Your task to perform on an android device: Go to Wikipedia Image 0: 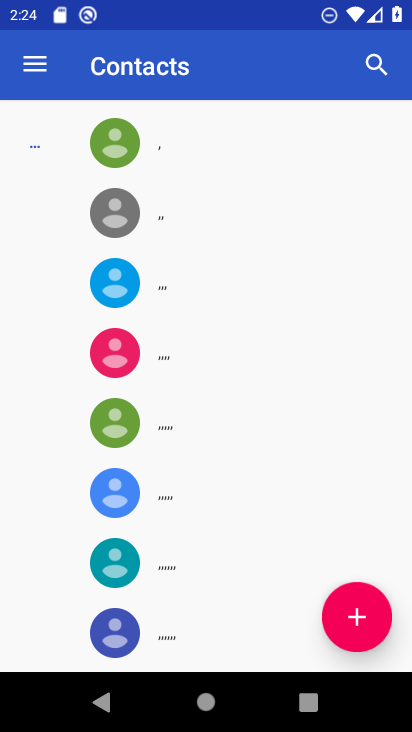
Step 0: drag from (285, 694) to (275, 201)
Your task to perform on an android device: Go to Wikipedia Image 1: 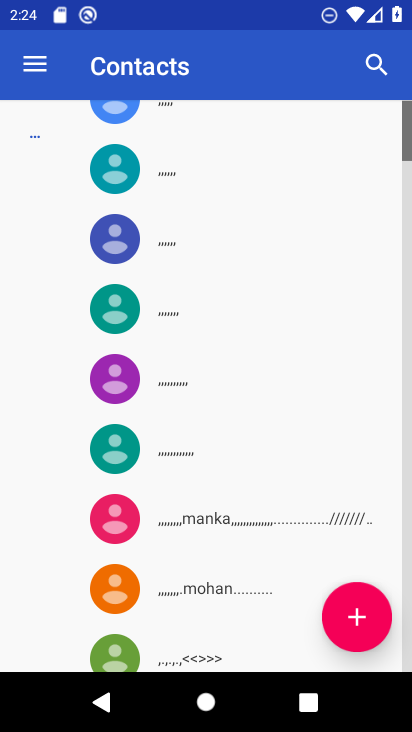
Step 1: press back button
Your task to perform on an android device: Go to Wikipedia Image 2: 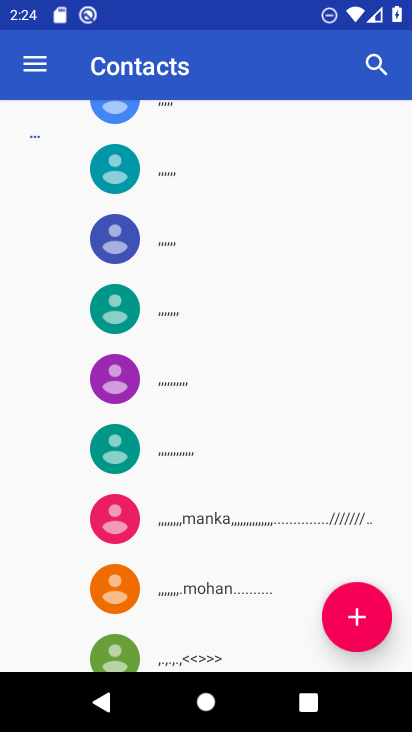
Step 2: press back button
Your task to perform on an android device: Go to Wikipedia Image 3: 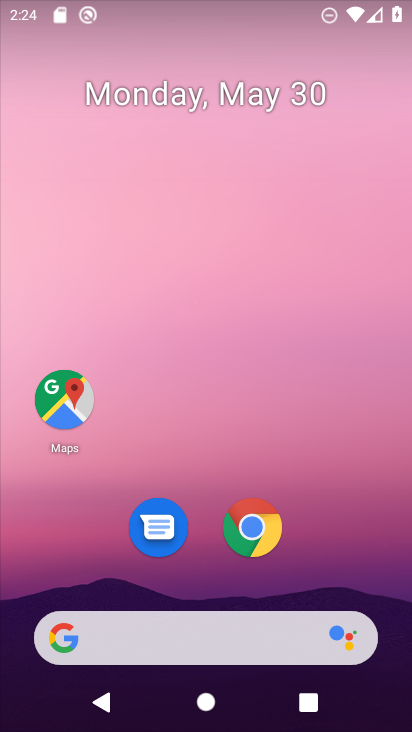
Step 3: drag from (265, 674) to (204, 122)
Your task to perform on an android device: Go to Wikipedia Image 4: 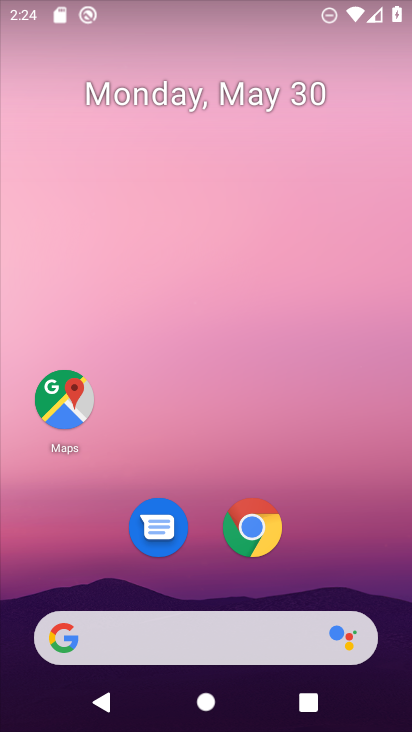
Step 4: drag from (277, 378) to (259, 109)
Your task to perform on an android device: Go to Wikipedia Image 5: 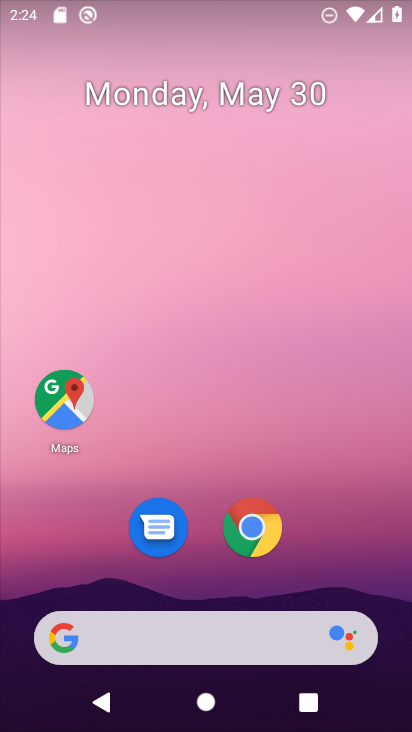
Step 5: drag from (280, 591) to (154, 141)
Your task to perform on an android device: Go to Wikipedia Image 6: 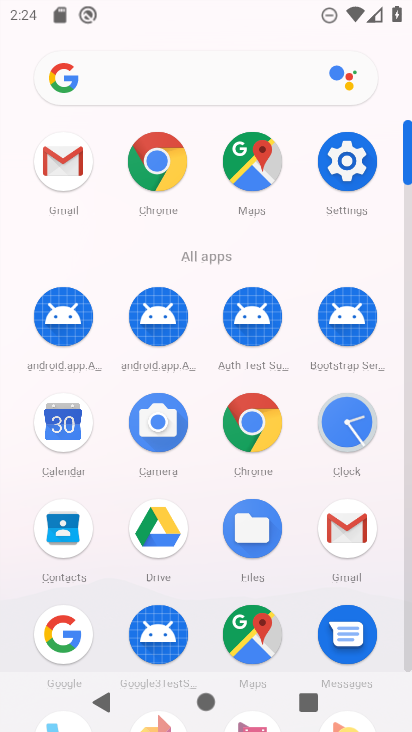
Step 6: click (166, 162)
Your task to perform on an android device: Go to Wikipedia Image 7: 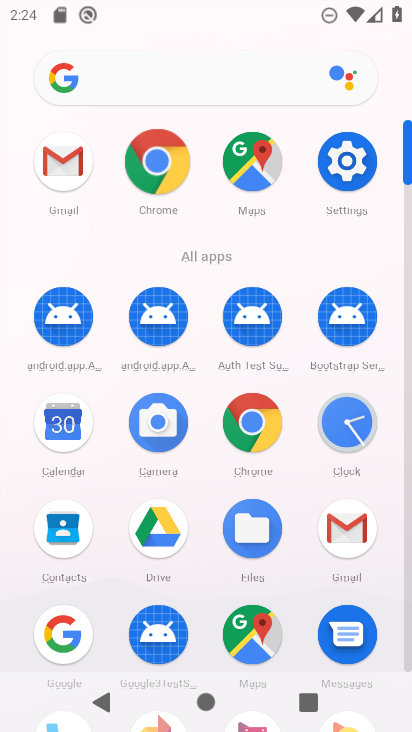
Step 7: click (166, 161)
Your task to perform on an android device: Go to Wikipedia Image 8: 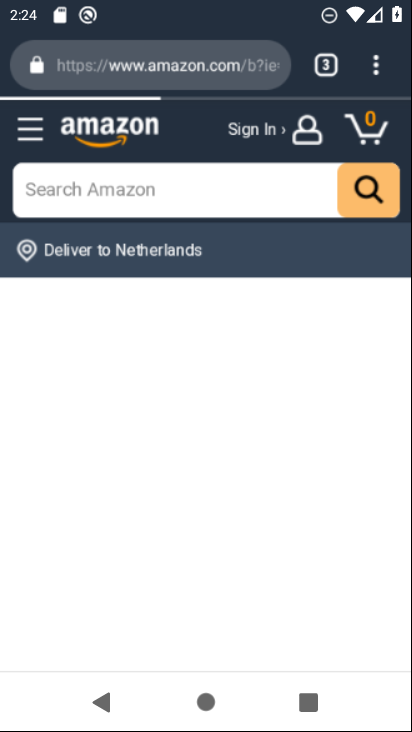
Step 8: click (150, 169)
Your task to perform on an android device: Go to Wikipedia Image 9: 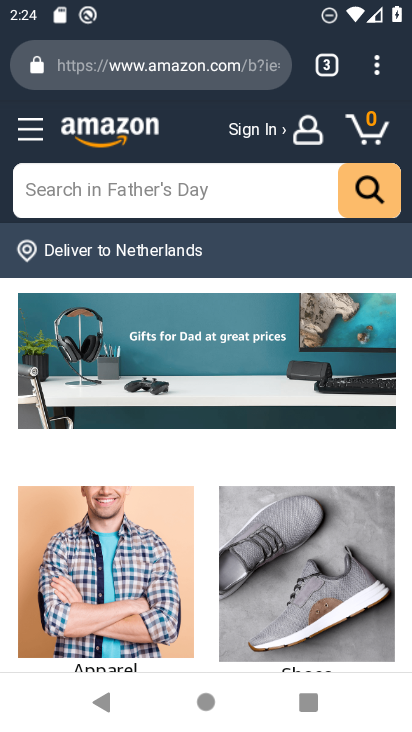
Step 9: drag from (375, 65) to (135, 132)
Your task to perform on an android device: Go to Wikipedia Image 10: 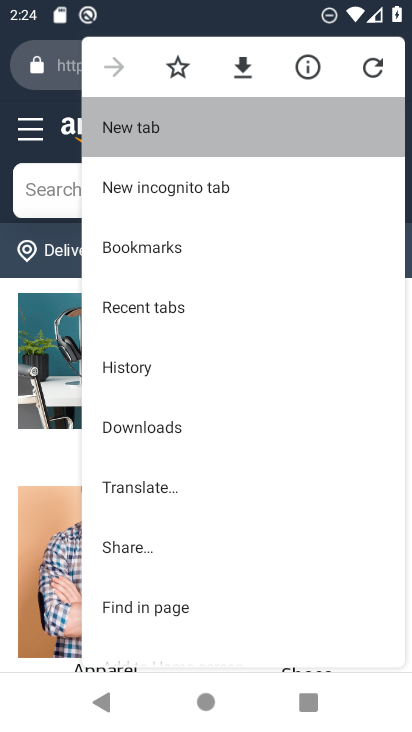
Step 10: click (134, 131)
Your task to perform on an android device: Go to Wikipedia Image 11: 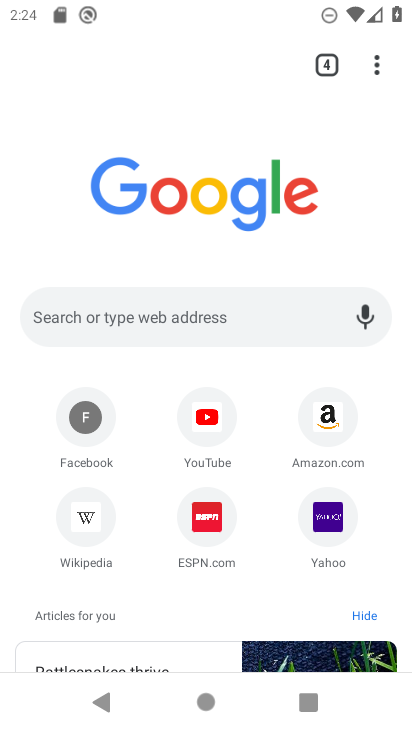
Step 11: click (93, 514)
Your task to perform on an android device: Go to Wikipedia Image 12: 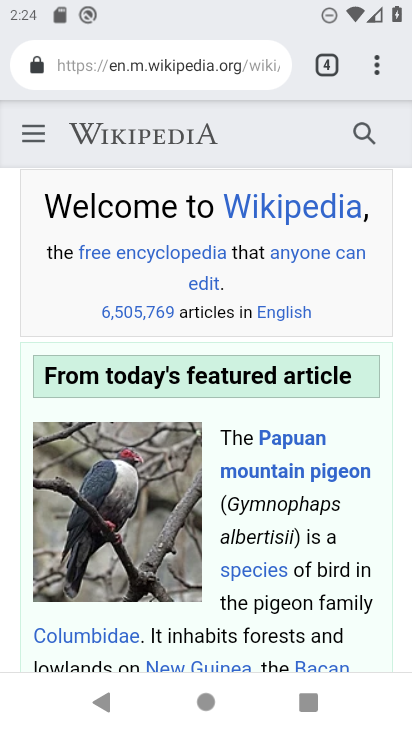
Step 12: task complete